Your task to perform on an android device: What's the weather going to be tomorrow? Image 0: 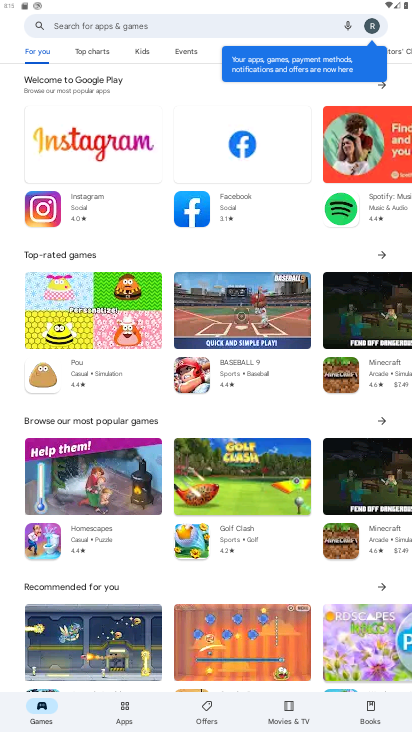
Step 0: press back button
Your task to perform on an android device: What's the weather going to be tomorrow? Image 1: 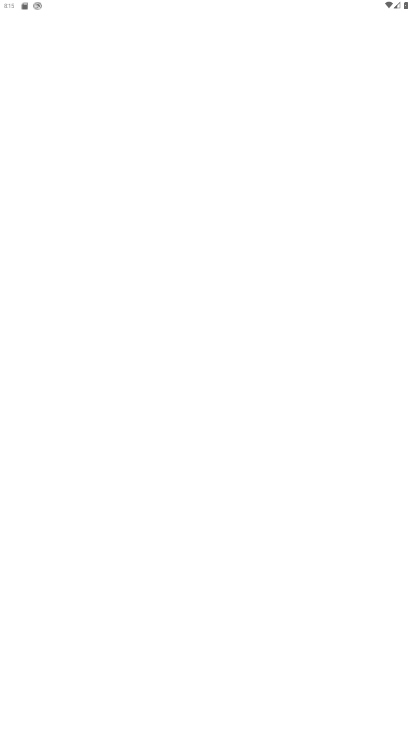
Step 1: press back button
Your task to perform on an android device: What's the weather going to be tomorrow? Image 2: 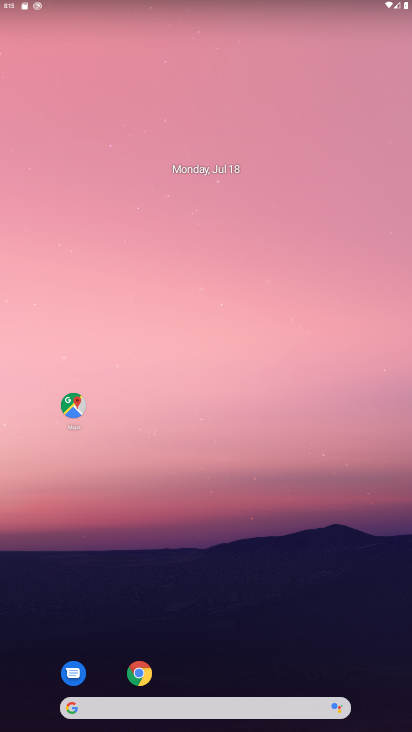
Step 2: drag from (266, 646) to (265, 225)
Your task to perform on an android device: What's the weather going to be tomorrow? Image 3: 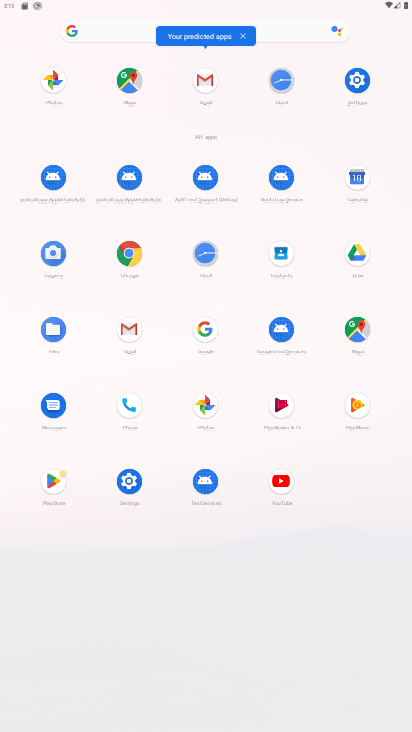
Step 3: click (134, 258)
Your task to perform on an android device: What's the weather going to be tomorrow? Image 4: 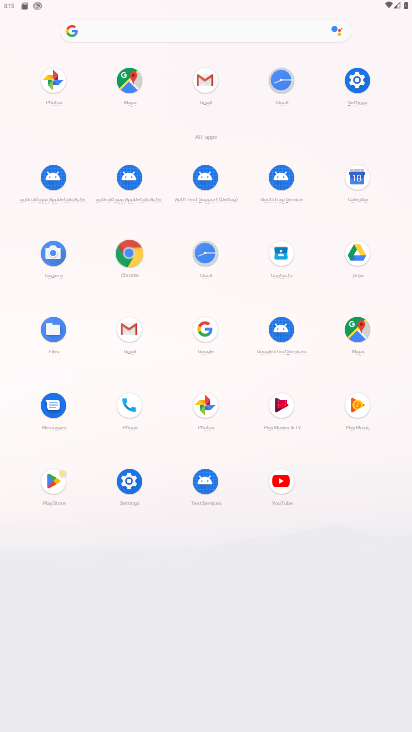
Step 4: click (129, 258)
Your task to perform on an android device: What's the weather going to be tomorrow? Image 5: 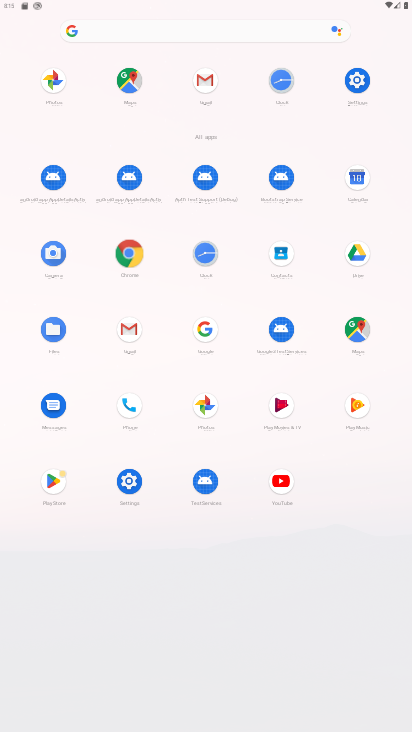
Step 5: click (128, 262)
Your task to perform on an android device: What's the weather going to be tomorrow? Image 6: 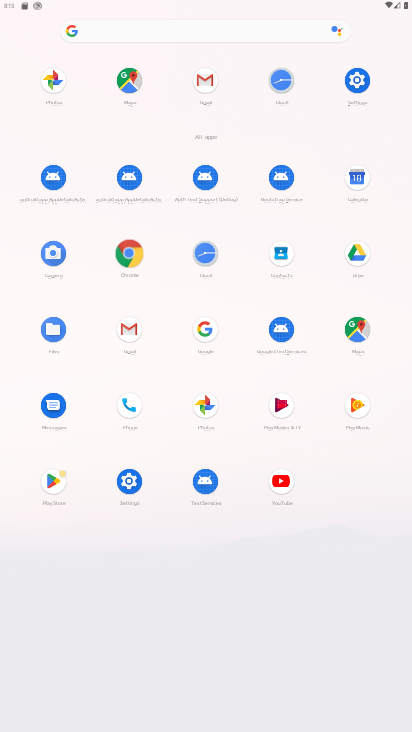
Step 6: click (134, 270)
Your task to perform on an android device: What's the weather going to be tomorrow? Image 7: 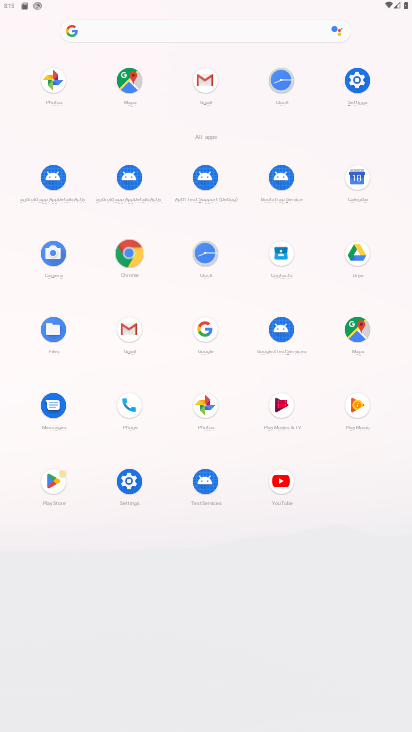
Step 7: click (127, 265)
Your task to perform on an android device: What's the weather going to be tomorrow? Image 8: 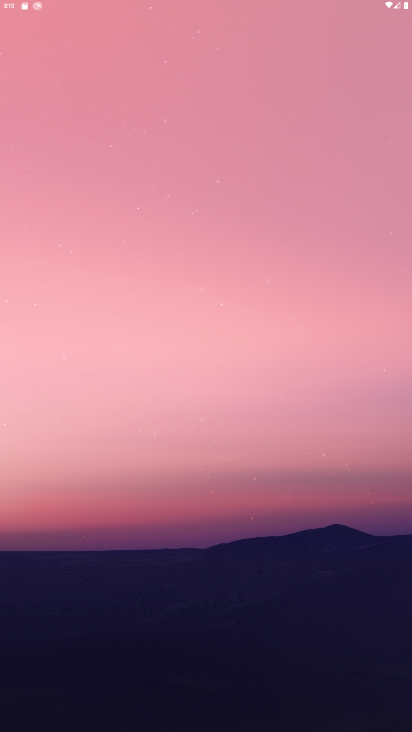
Step 8: click (132, 277)
Your task to perform on an android device: What's the weather going to be tomorrow? Image 9: 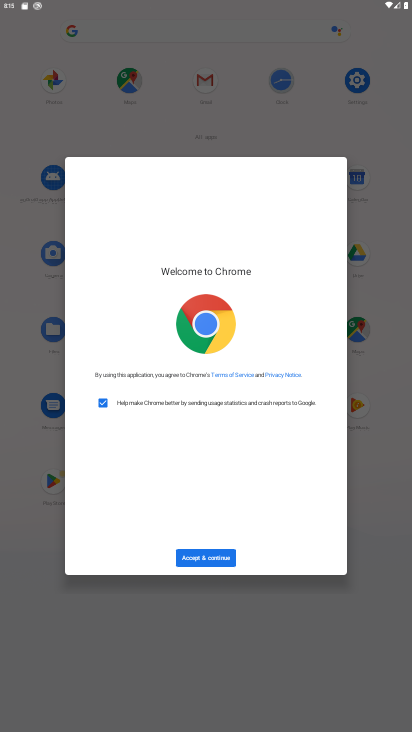
Step 9: click (221, 554)
Your task to perform on an android device: What's the weather going to be tomorrow? Image 10: 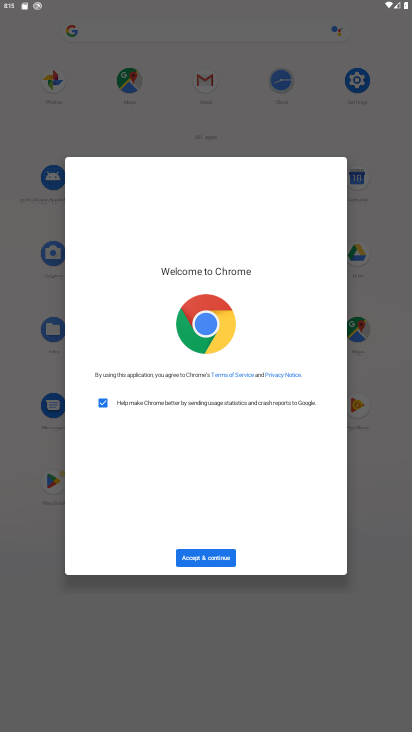
Step 10: click (220, 553)
Your task to perform on an android device: What's the weather going to be tomorrow? Image 11: 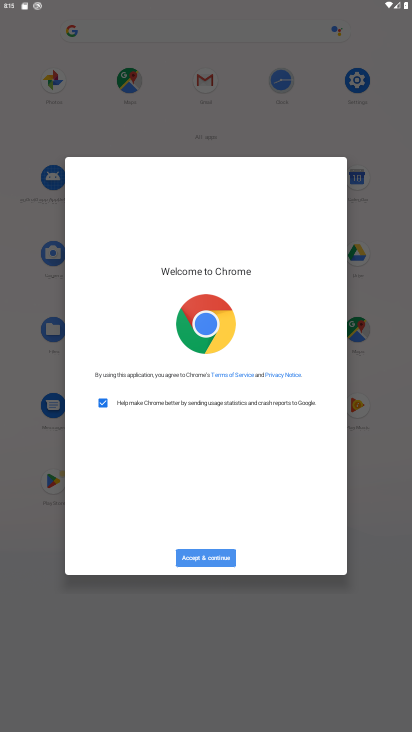
Step 11: click (220, 553)
Your task to perform on an android device: What's the weather going to be tomorrow? Image 12: 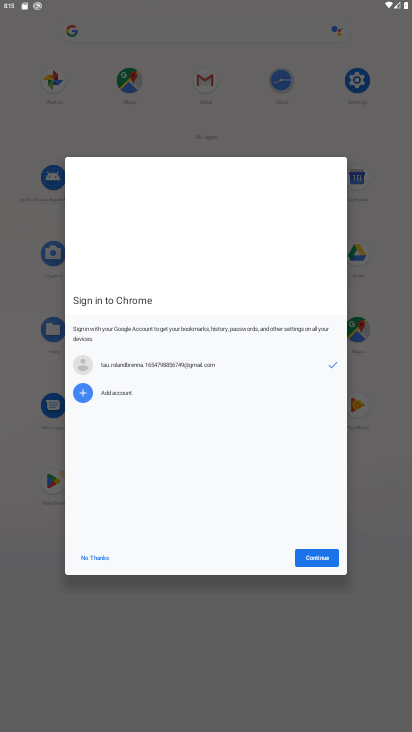
Step 12: click (221, 557)
Your task to perform on an android device: What's the weather going to be tomorrow? Image 13: 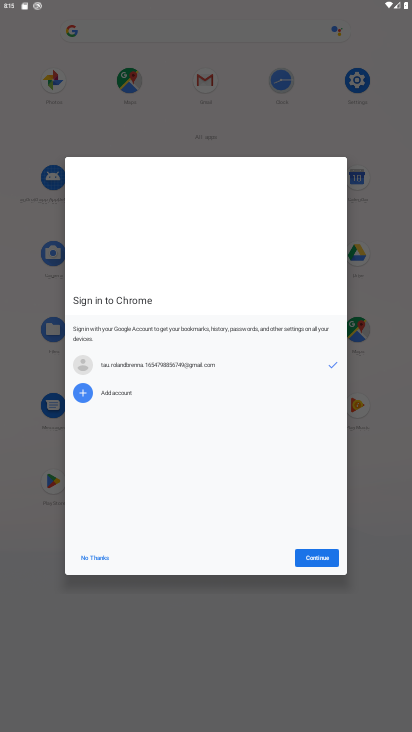
Step 13: click (333, 559)
Your task to perform on an android device: What's the weather going to be tomorrow? Image 14: 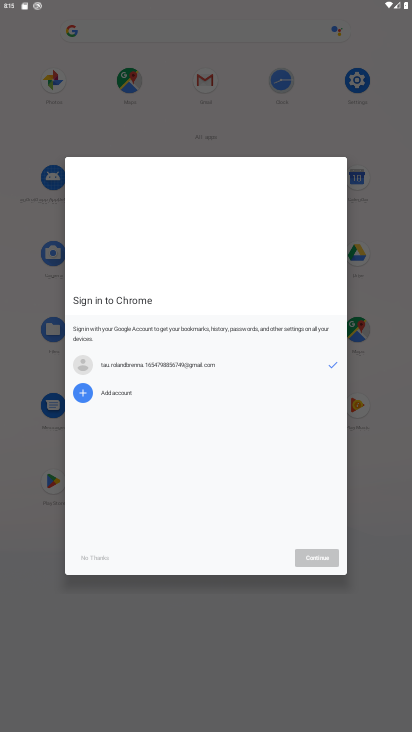
Step 14: click (330, 562)
Your task to perform on an android device: What's the weather going to be tomorrow? Image 15: 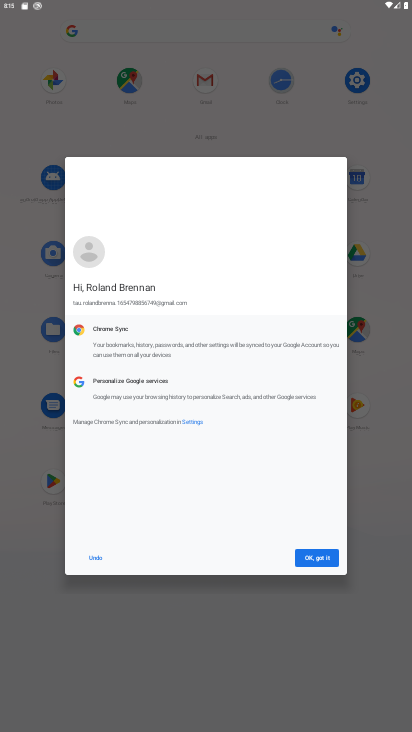
Step 15: click (331, 564)
Your task to perform on an android device: What's the weather going to be tomorrow? Image 16: 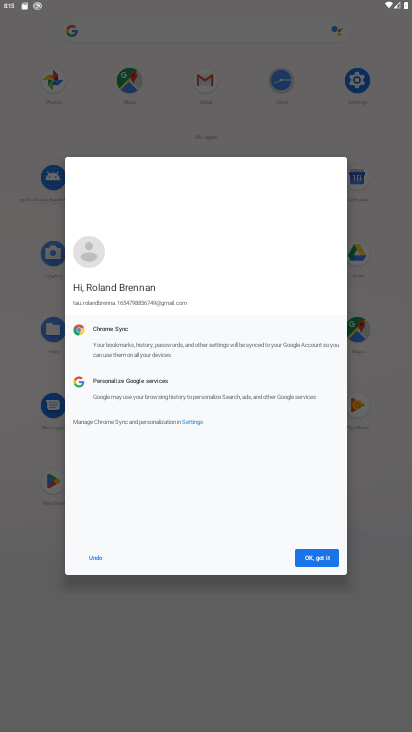
Step 16: click (331, 564)
Your task to perform on an android device: What's the weather going to be tomorrow? Image 17: 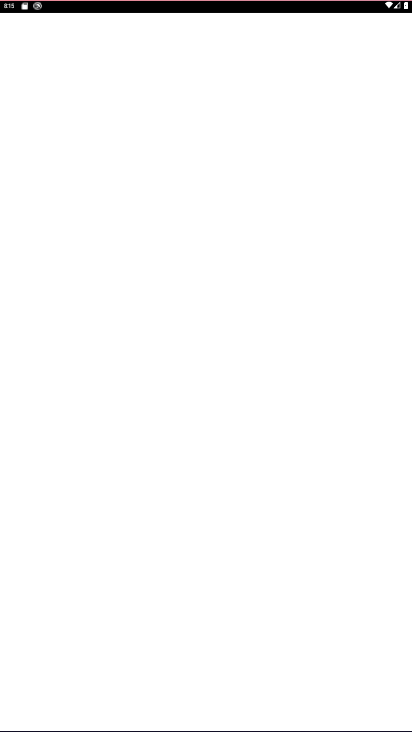
Step 17: click (323, 548)
Your task to perform on an android device: What's the weather going to be tomorrow? Image 18: 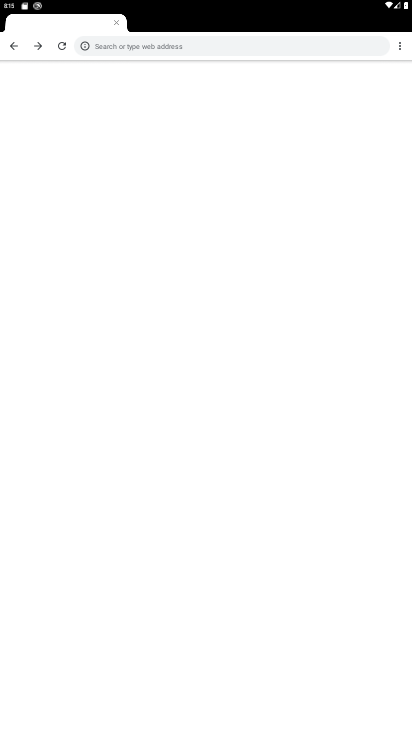
Step 18: click (325, 553)
Your task to perform on an android device: What's the weather going to be tomorrow? Image 19: 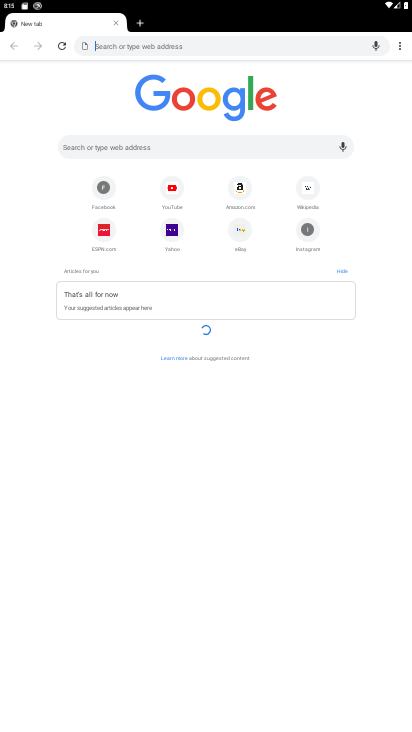
Step 19: click (109, 143)
Your task to perform on an android device: What's the weather going to be tomorrow? Image 20: 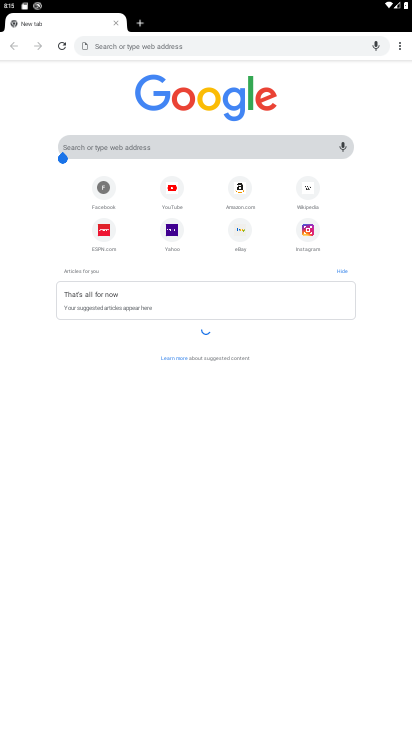
Step 20: click (112, 143)
Your task to perform on an android device: What's the weather going to be tomorrow? Image 21: 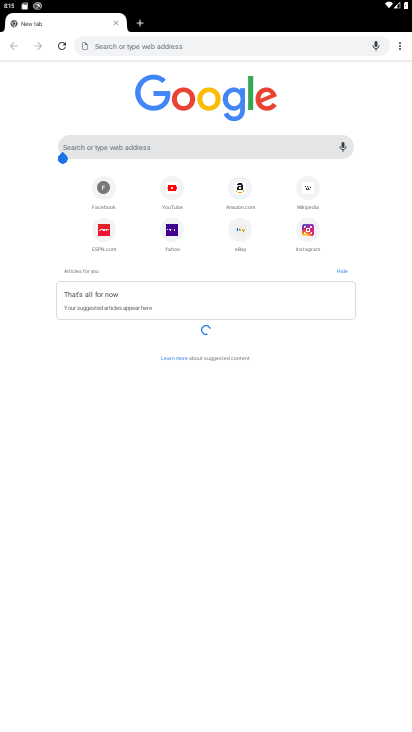
Step 21: click (118, 148)
Your task to perform on an android device: What's the weather going to be tomorrow? Image 22: 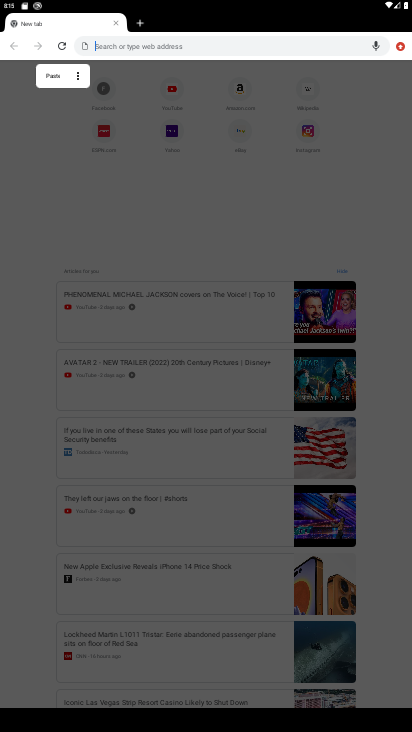
Step 22: type "weather today?"
Your task to perform on an android device: What's the weather going to be tomorrow? Image 23: 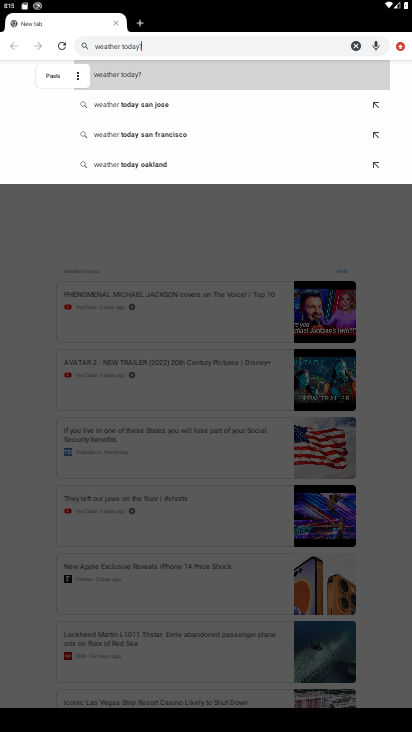
Step 23: click (141, 74)
Your task to perform on an android device: What's the weather going to be tomorrow? Image 24: 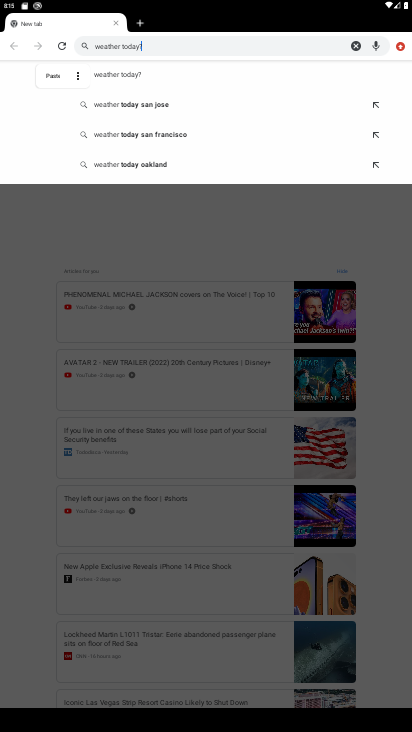
Step 24: click (120, 72)
Your task to perform on an android device: What's the weather going to be tomorrow? Image 25: 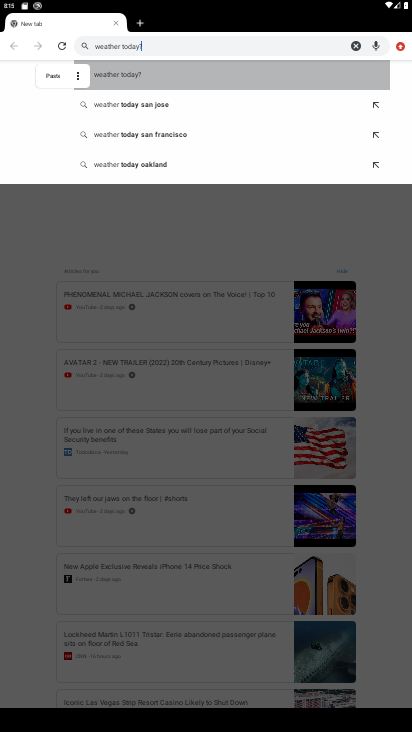
Step 25: click (119, 72)
Your task to perform on an android device: What's the weather going to be tomorrow? Image 26: 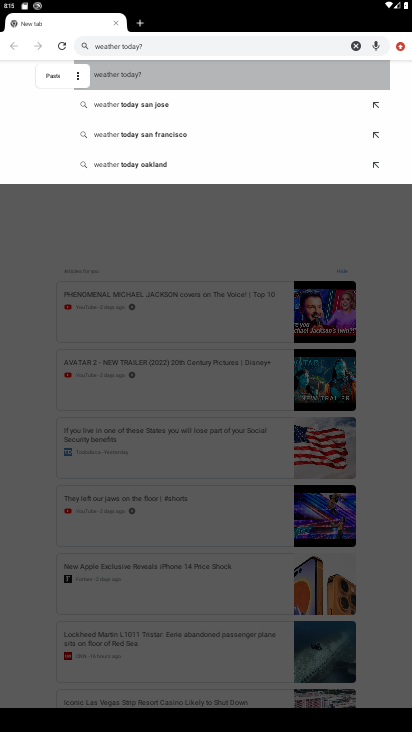
Step 26: click (119, 77)
Your task to perform on an android device: What's the weather going to be tomorrow? Image 27: 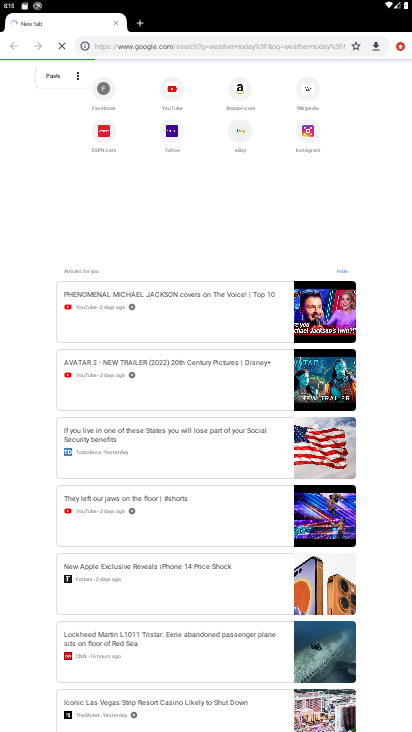
Step 27: click (378, 104)
Your task to perform on an android device: What's the weather going to be tomorrow? Image 28: 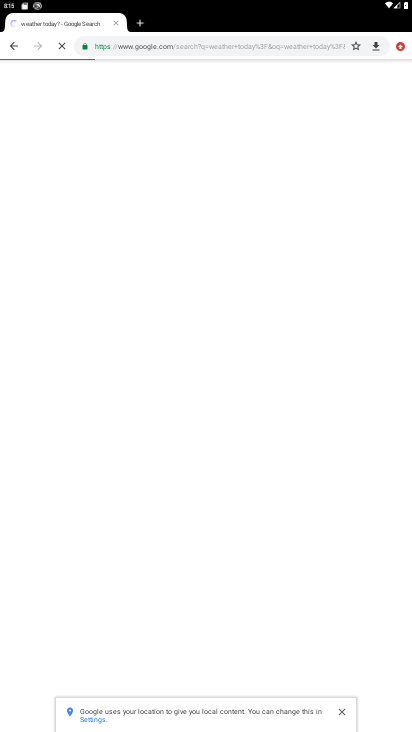
Step 28: task complete